Your task to perform on an android device: set default search engine in the chrome app Image 0: 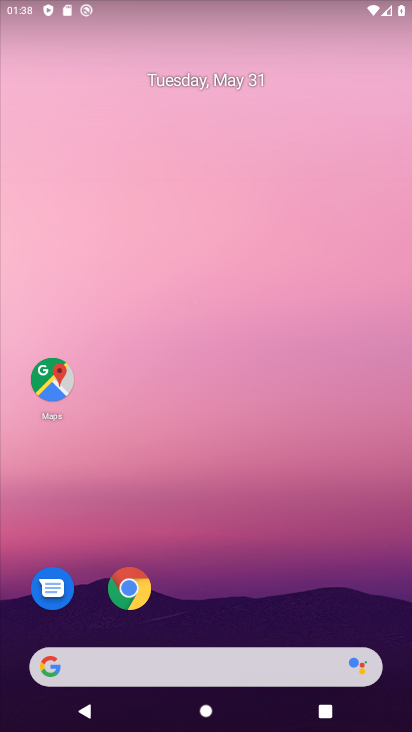
Step 0: drag from (341, 615) to (345, 213)
Your task to perform on an android device: set default search engine in the chrome app Image 1: 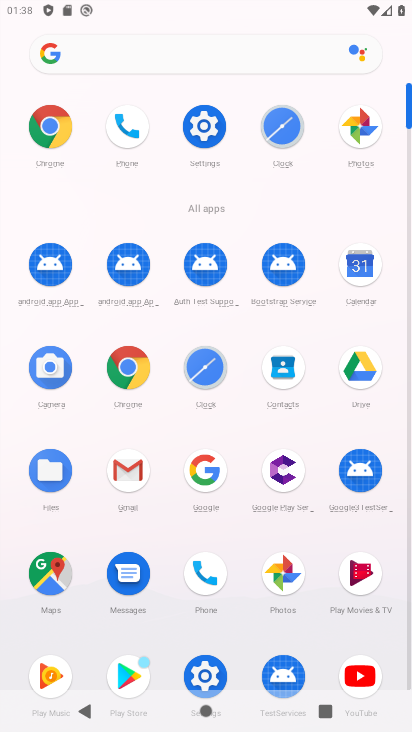
Step 1: click (135, 379)
Your task to perform on an android device: set default search engine in the chrome app Image 2: 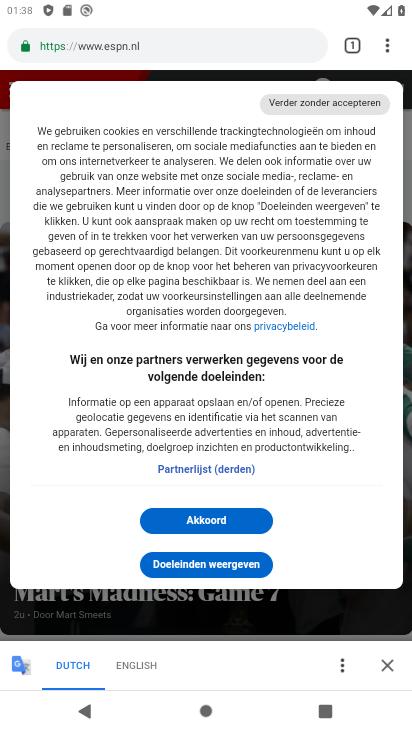
Step 2: click (387, 50)
Your task to perform on an android device: set default search engine in the chrome app Image 3: 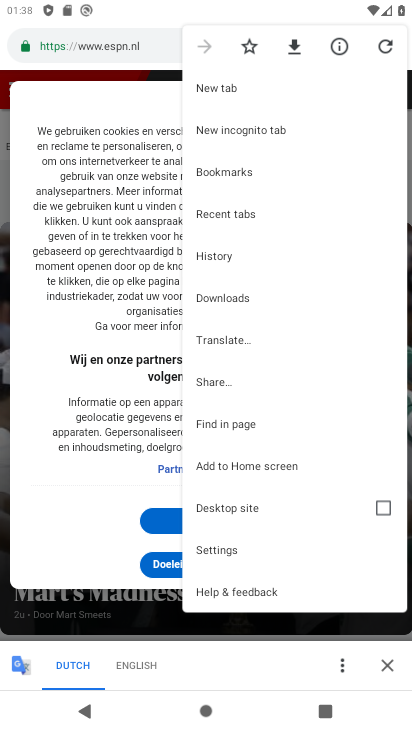
Step 3: click (227, 555)
Your task to perform on an android device: set default search engine in the chrome app Image 4: 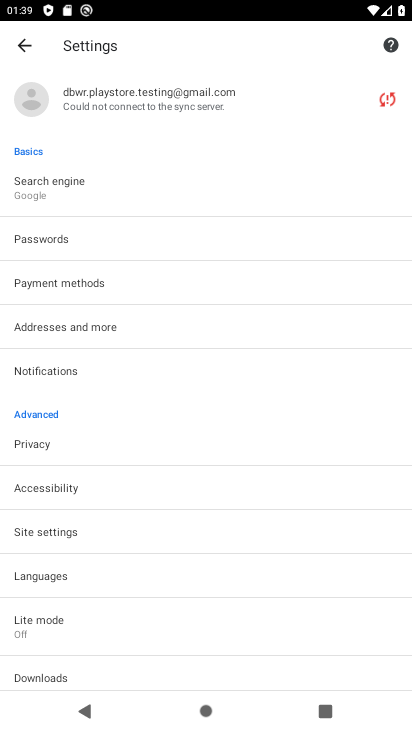
Step 4: drag from (269, 537) to (317, 342)
Your task to perform on an android device: set default search engine in the chrome app Image 5: 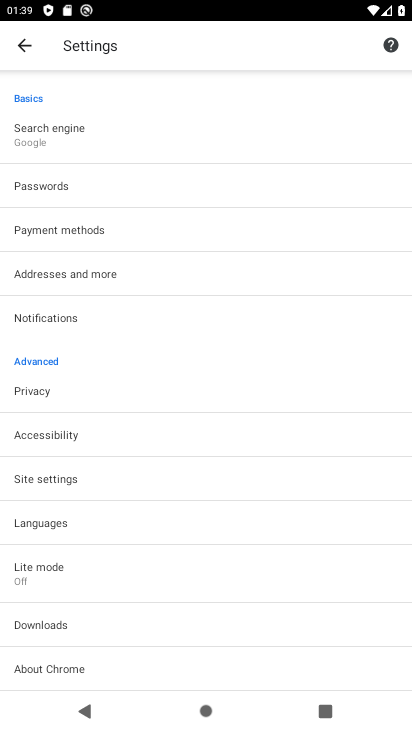
Step 5: drag from (290, 565) to (288, 441)
Your task to perform on an android device: set default search engine in the chrome app Image 6: 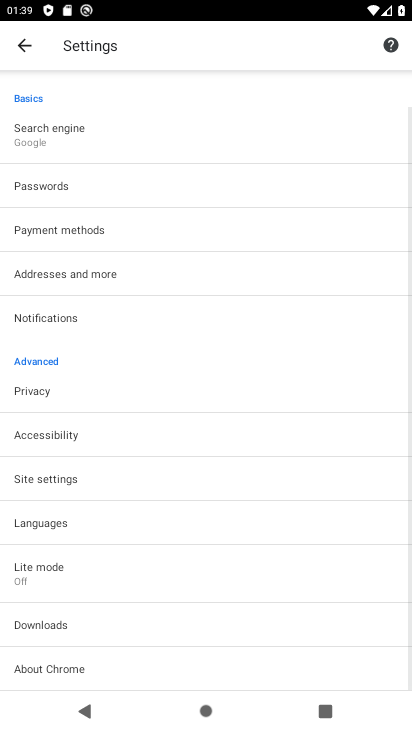
Step 6: drag from (291, 254) to (282, 379)
Your task to perform on an android device: set default search engine in the chrome app Image 7: 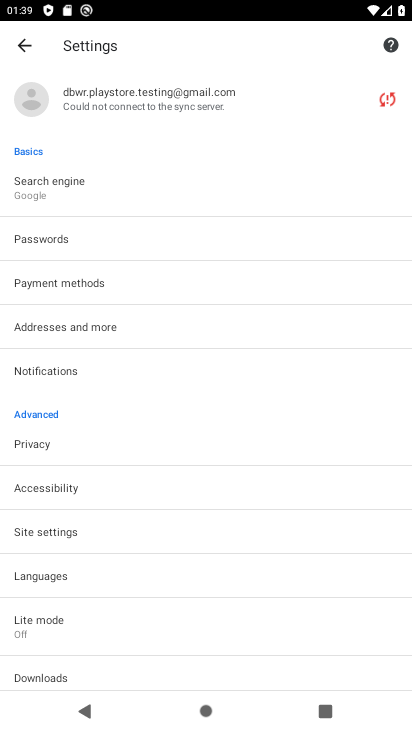
Step 7: click (150, 200)
Your task to perform on an android device: set default search engine in the chrome app Image 8: 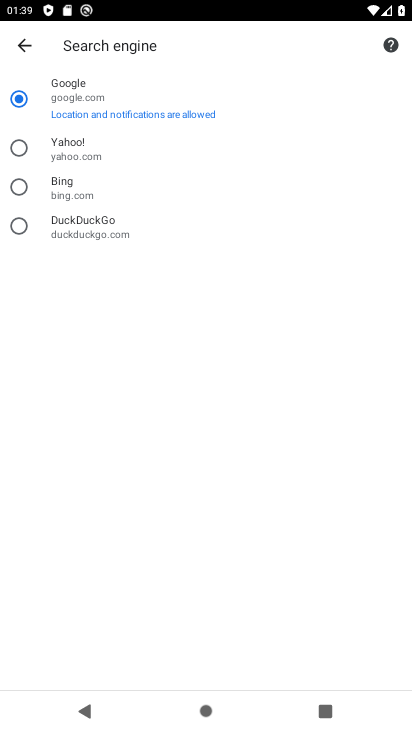
Step 8: click (72, 187)
Your task to perform on an android device: set default search engine in the chrome app Image 9: 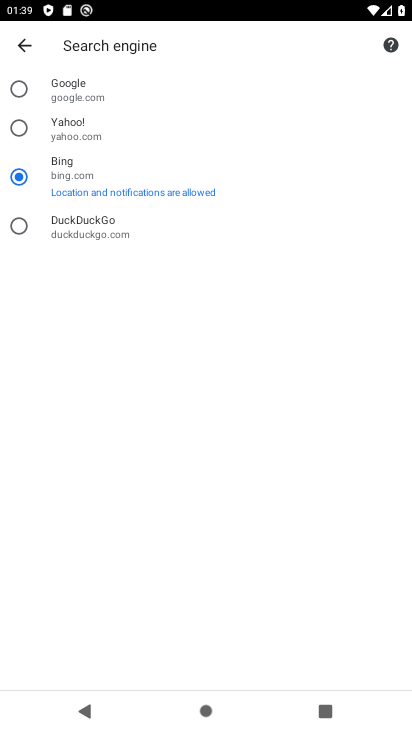
Step 9: task complete